Your task to perform on an android device: Go to CNN.com Image 0: 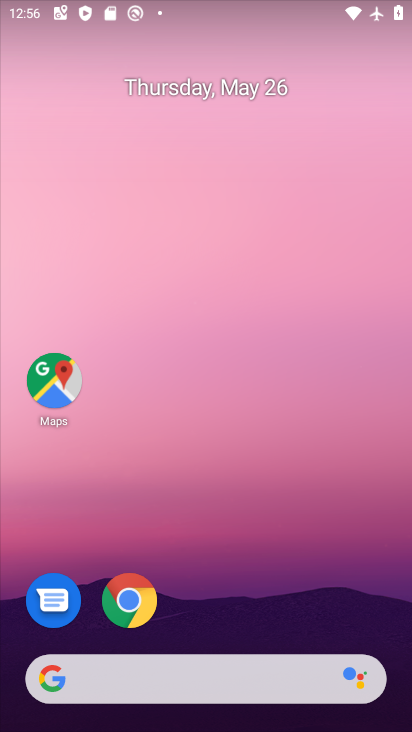
Step 0: drag from (357, 566) to (324, 111)
Your task to perform on an android device: Go to CNN.com Image 1: 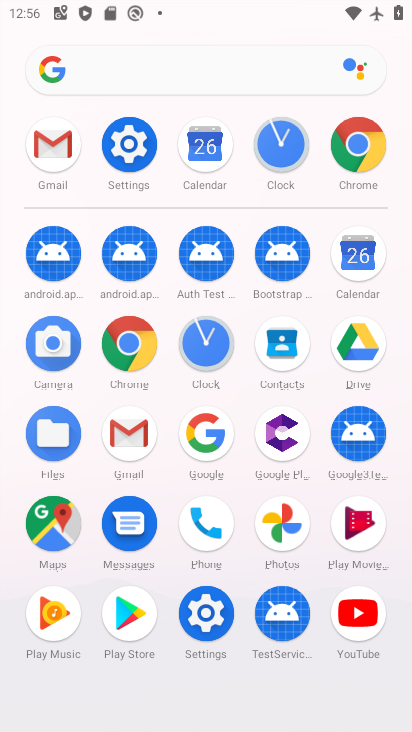
Step 1: click (132, 345)
Your task to perform on an android device: Go to CNN.com Image 2: 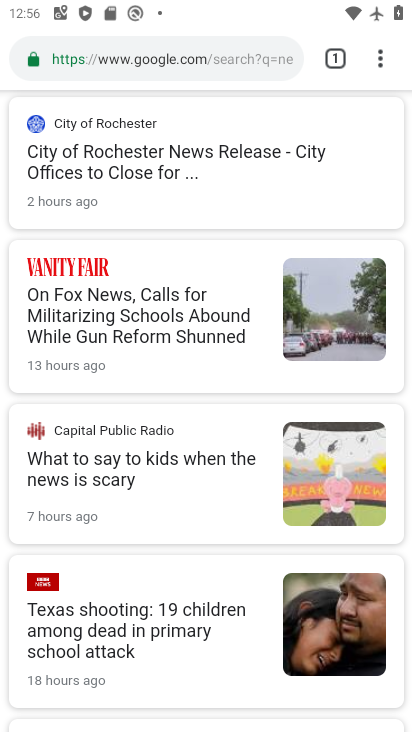
Step 2: click (225, 68)
Your task to perform on an android device: Go to CNN.com Image 3: 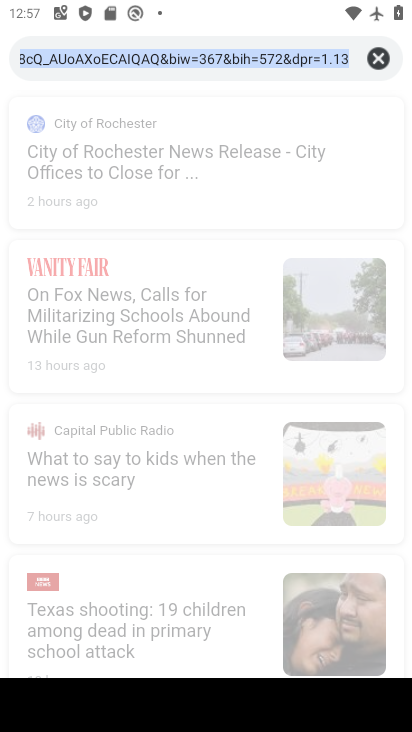
Step 3: type "cnn.com"
Your task to perform on an android device: Go to CNN.com Image 4: 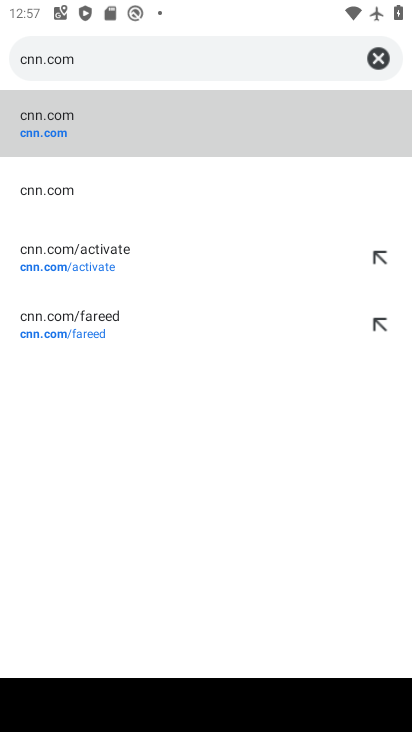
Step 4: click (27, 136)
Your task to perform on an android device: Go to CNN.com Image 5: 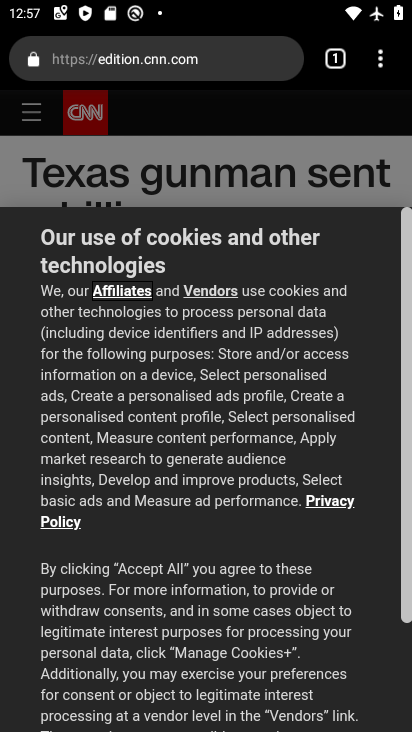
Step 5: task complete